Your task to perform on an android device: check android version Image 0: 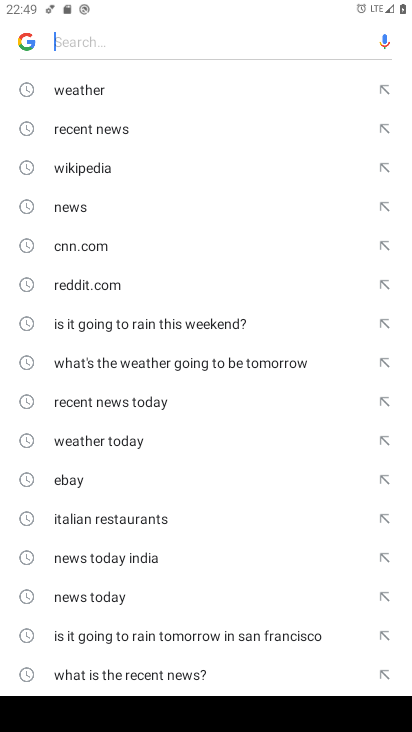
Step 0: press home button
Your task to perform on an android device: check android version Image 1: 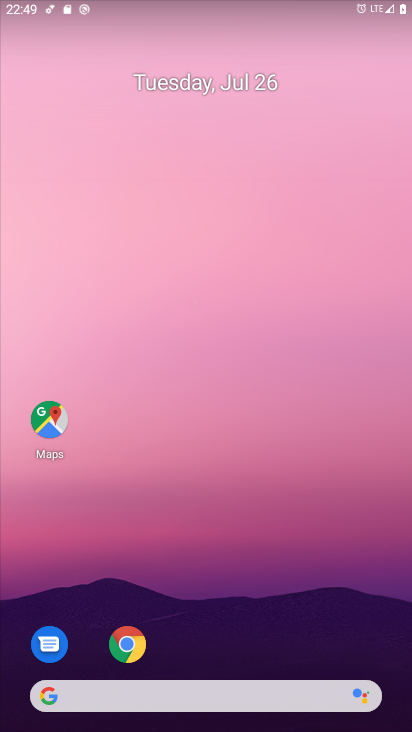
Step 1: drag from (242, 618) to (262, 105)
Your task to perform on an android device: check android version Image 2: 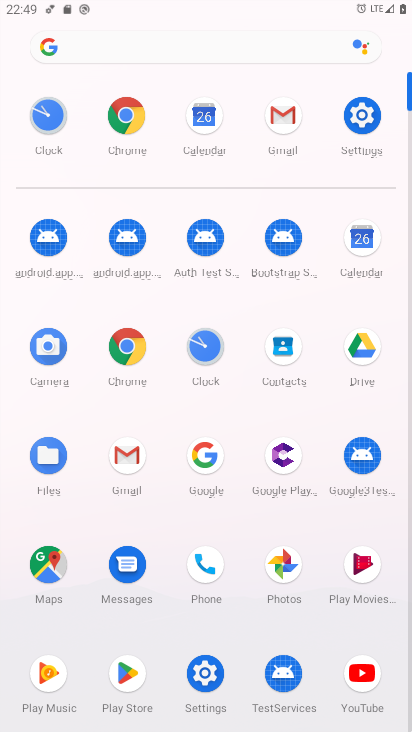
Step 2: click (214, 681)
Your task to perform on an android device: check android version Image 3: 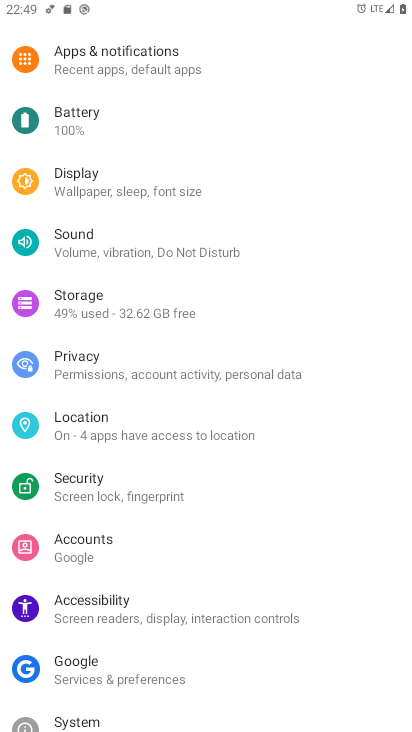
Step 3: drag from (153, 612) to (171, 249)
Your task to perform on an android device: check android version Image 4: 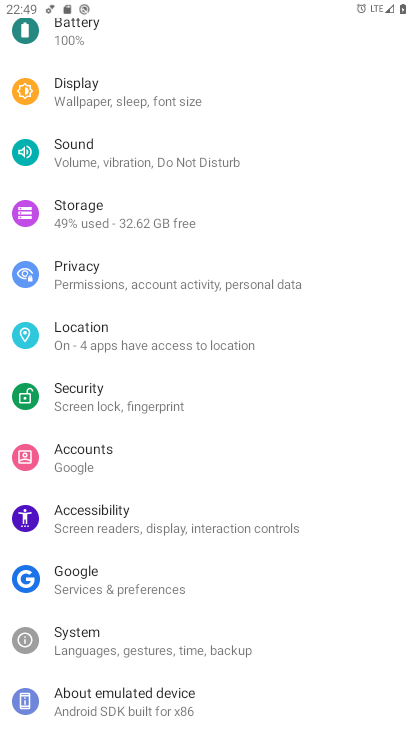
Step 4: click (84, 696)
Your task to perform on an android device: check android version Image 5: 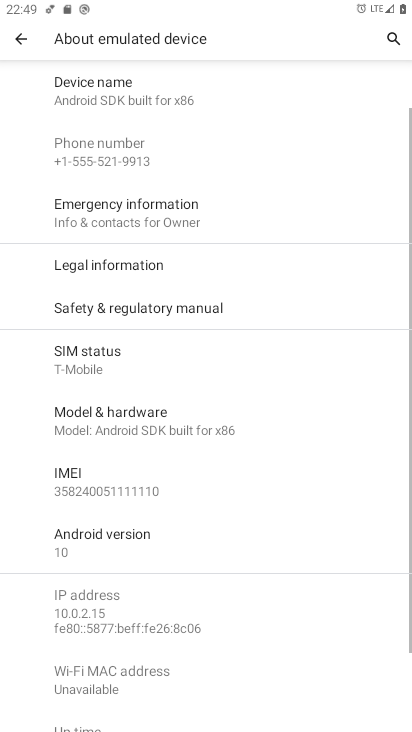
Step 5: click (115, 549)
Your task to perform on an android device: check android version Image 6: 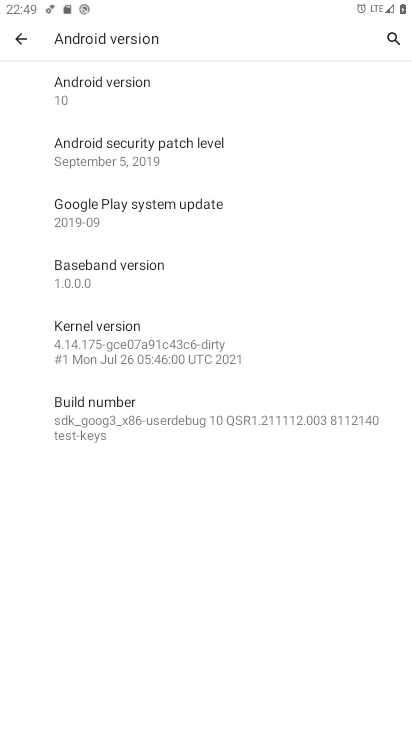
Step 6: task complete